Your task to perform on an android device: open the mobile data screen to see how much data has been used Image 0: 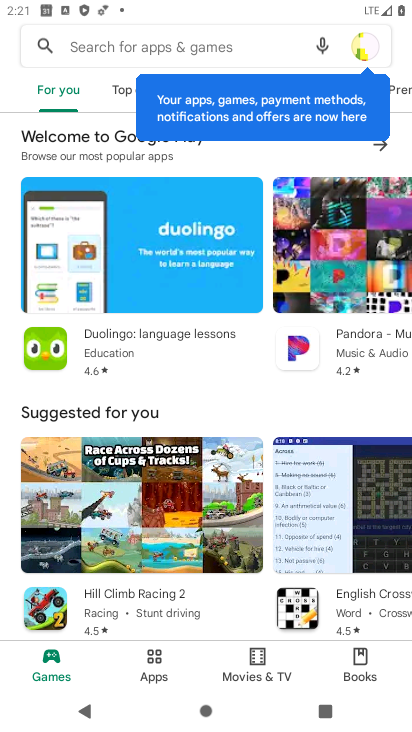
Step 0: press home button
Your task to perform on an android device: open the mobile data screen to see how much data has been used Image 1: 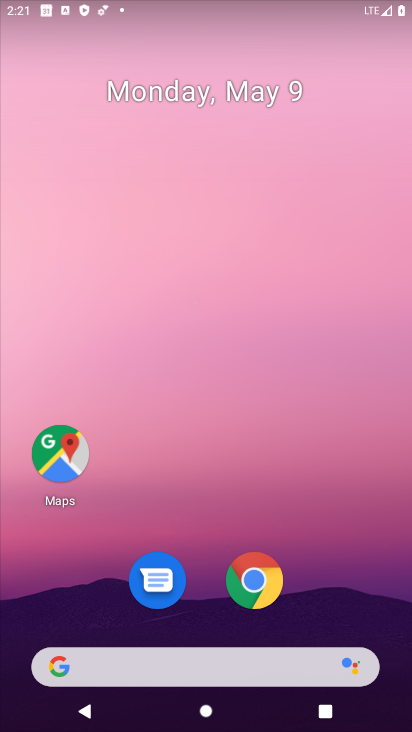
Step 1: drag from (319, 600) to (258, 64)
Your task to perform on an android device: open the mobile data screen to see how much data has been used Image 2: 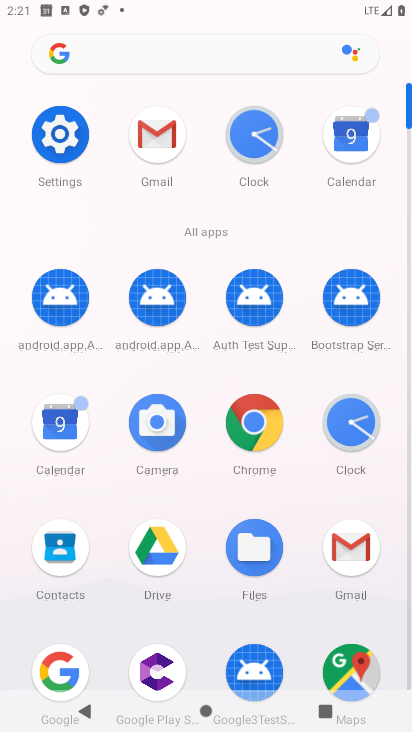
Step 2: click (66, 133)
Your task to perform on an android device: open the mobile data screen to see how much data has been used Image 3: 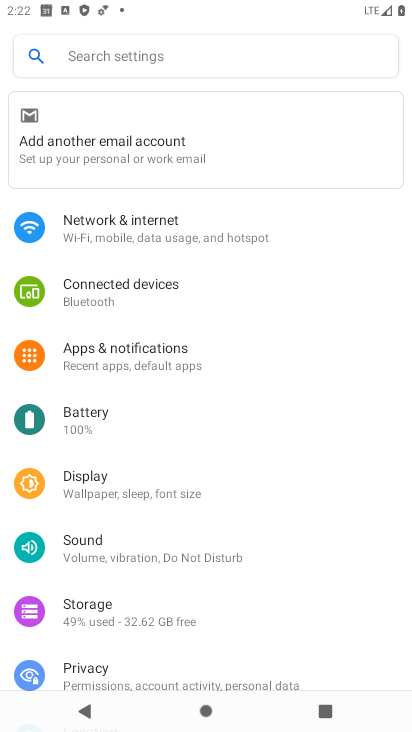
Step 3: click (155, 223)
Your task to perform on an android device: open the mobile data screen to see how much data has been used Image 4: 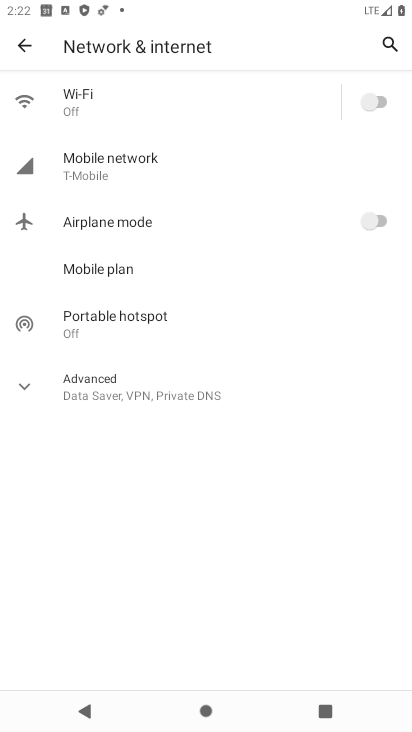
Step 4: click (165, 167)
Your task to perform on an android device: open the mobile data screen to see how much data has been used Image 5: 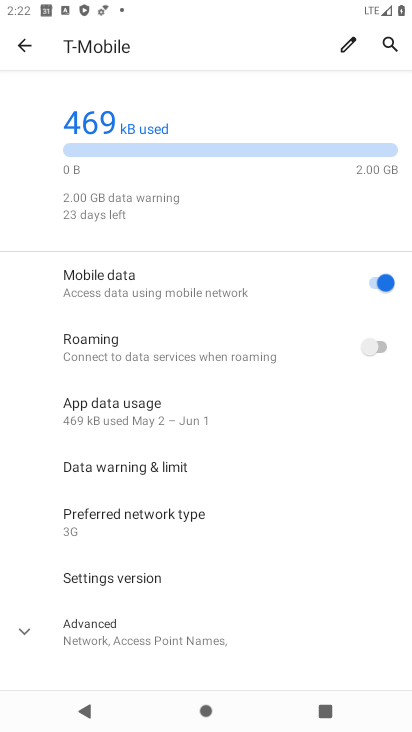
Step 5: task complete